Your task to perform on an android device: toggle notifications settings in the gmail app Image 0: 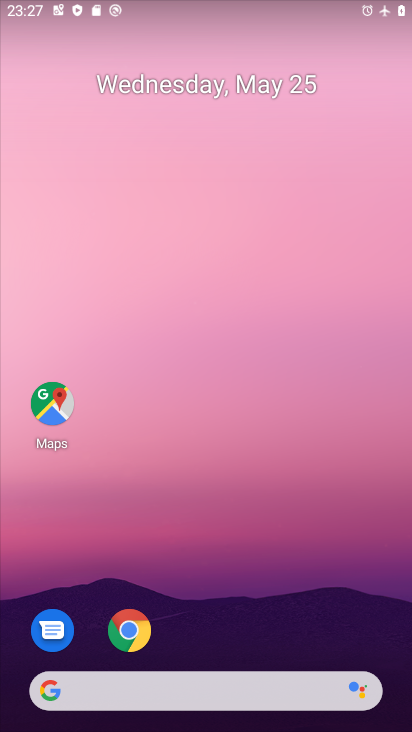
Step 0: drag from (224, 655) to (267, 139)
Your task to perform on an android device: toggle notifications settings in the gmail app Image 1: 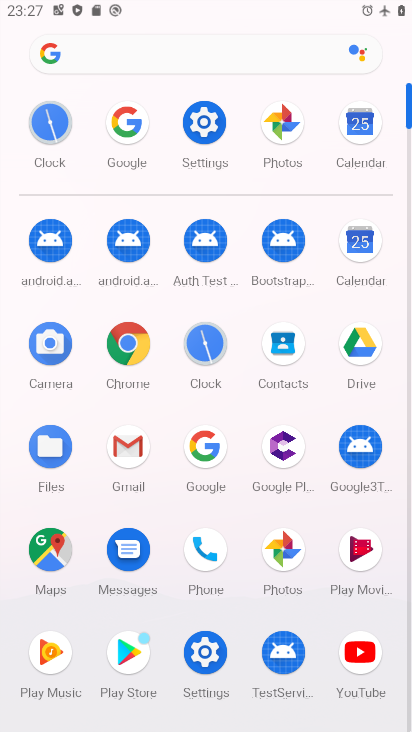
Step 1: click (126, 471)
Your task to perform on an android device: toggle notifications settings in the gmail app Image 2: 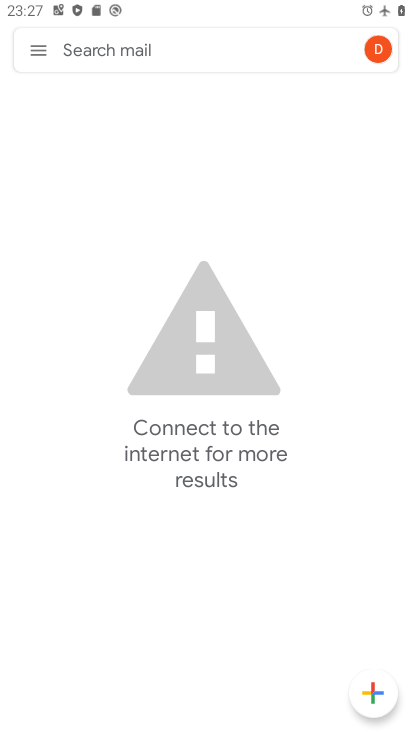
Step 2: click (44, 53)
Your task to perform on an android device: toggle notifications settings in the gmail app Image 3: 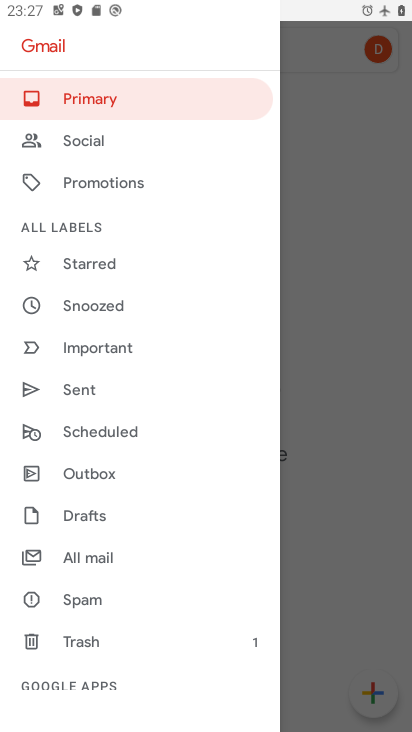
Step 3: drag from (124, 622) to (166, 349)
Your task to perform on an android device: toggle notifications settings in the gmail app Image 4: 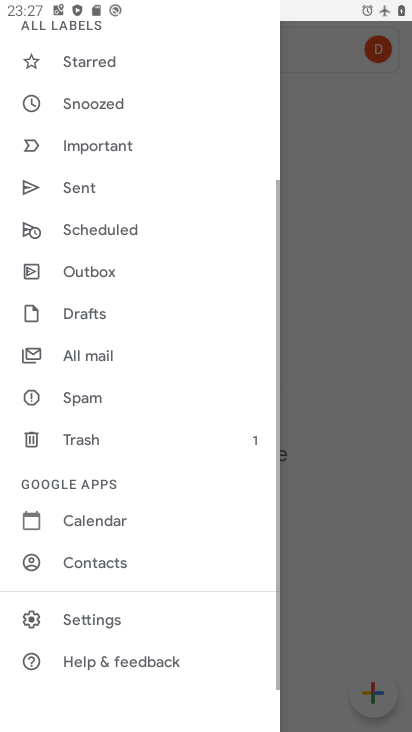
Step 4: click (108, 621)
Your task to perform on an android device: toggle notifications settings in the gmail app Image 5: 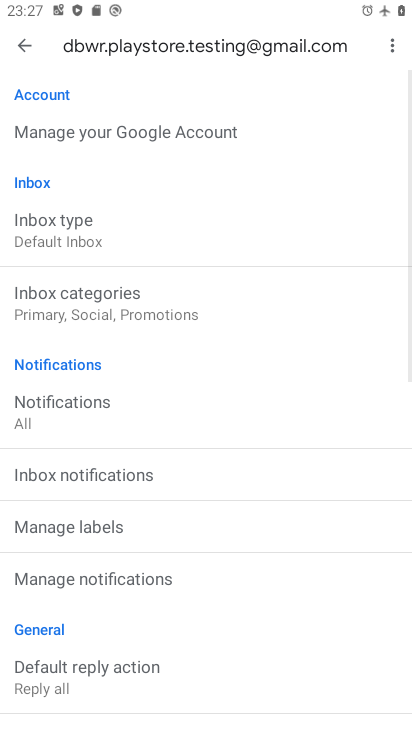
Step 5: click (118, 571)
Your task to perform on an android device: toggle notifications settings in the gmail app Image 6: 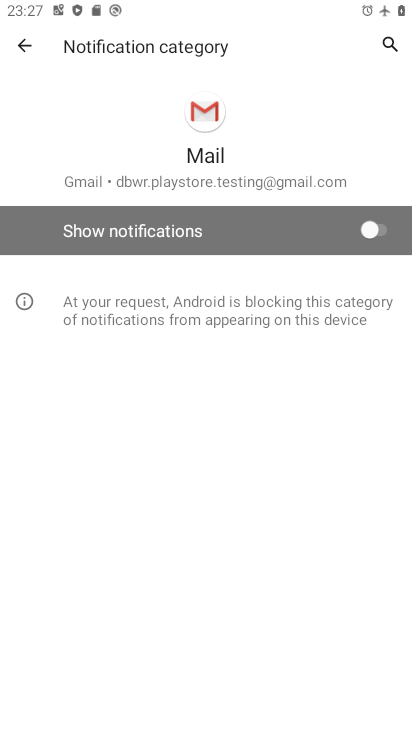
Step 6: click (382, 226)
Your task to perform on an android device: toggle notifications settings in the gmail app Image 7: 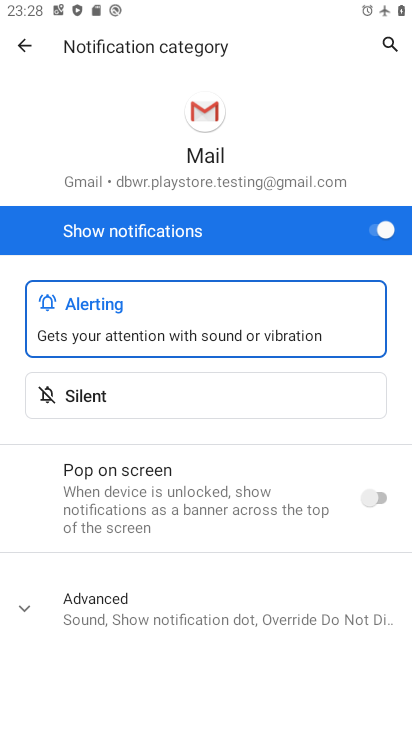
Step 7: task complete